Your task to perform on an android device: turn smart compose on in the gmail app Image 0: 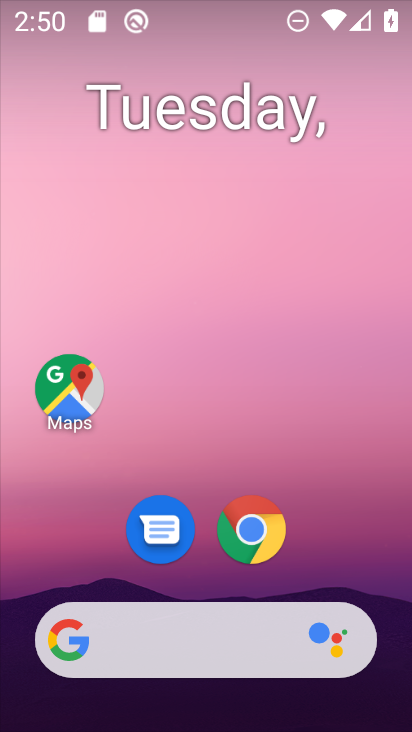
Step 0: drag from (207, 541) to (264, 7)
Your task to perform on an android device: turn smart compose on in the gmail app Image 1: 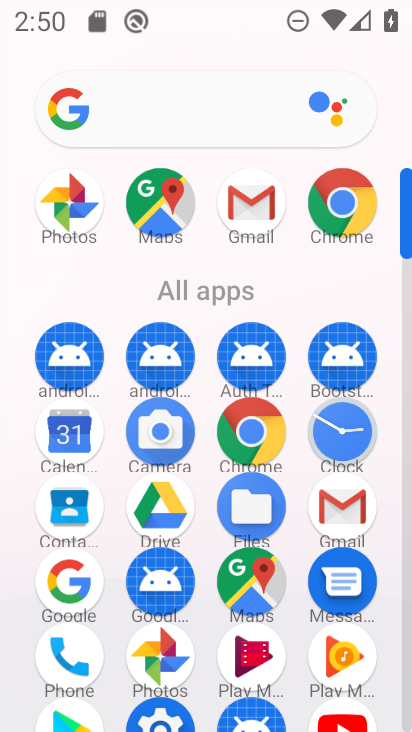
Step 1: click (244, 204)
Your task to perform on an android device: turn smart compose on in the gmail app Image 2: 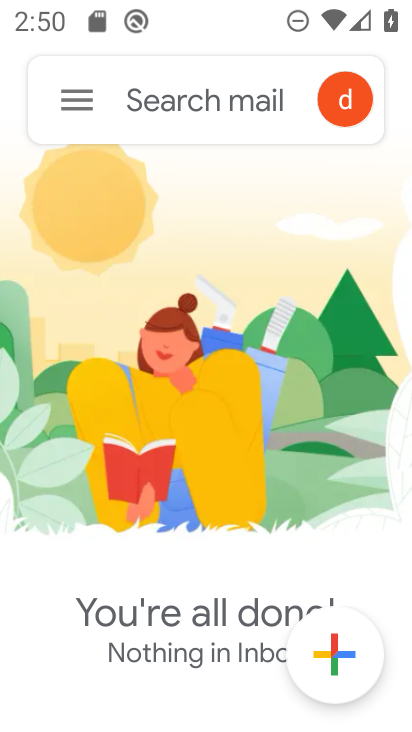
Step 2: click (75, 101)
Your task to perform on an android device: turn smart compose on in the gmail app Image 3: 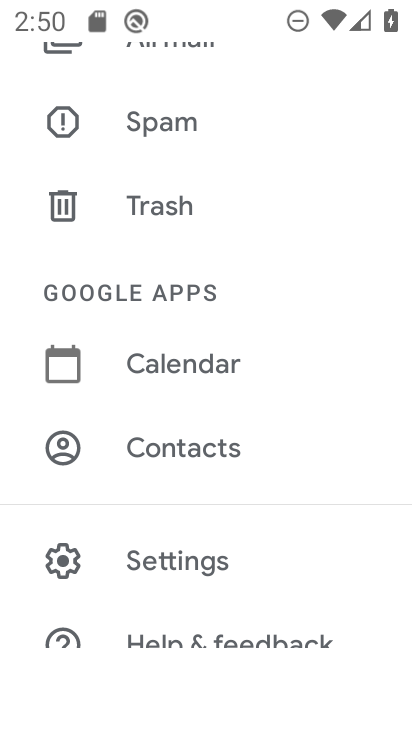
Step 3: click (183, 556)
Your task to perform on an android device: turn smart compose on in the gmail app Image 4: 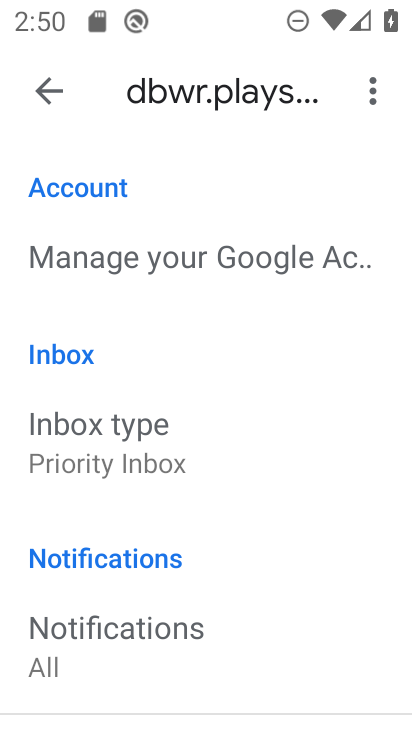
Step 4: task complete